Your task to perform on an android device: add a label to a message in the gmail app Image 0: 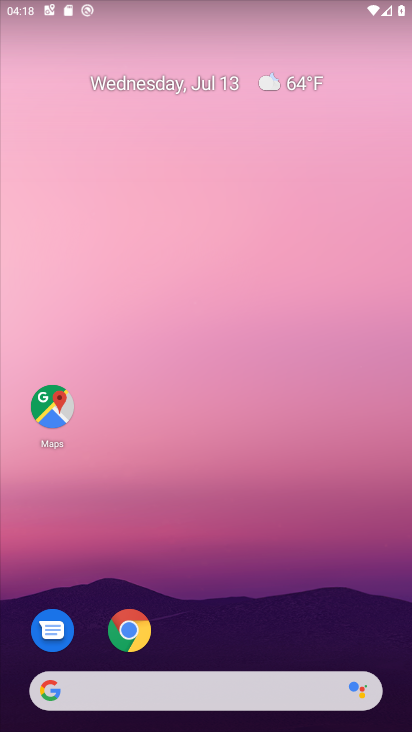
Step 0: drag from (188, 654) to (115, 108)
Your task to perform on an android device: add a label to a message in the gmail app Image 1: 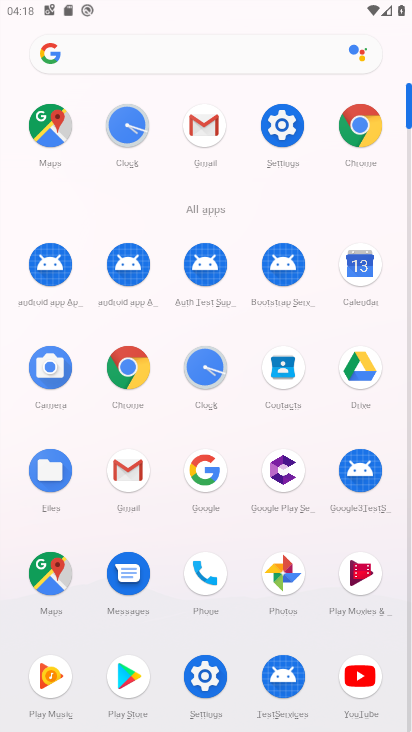
Step 1: click (206, 138)
Your task to perform on an android device: add a label to a message in the gmail app Image 2: 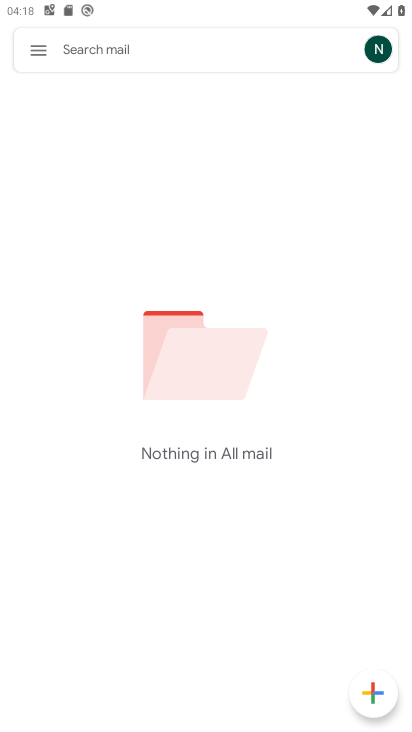
Step 2: task complete